Your task to perform on an android device: open chrome privacy settings Image 0: 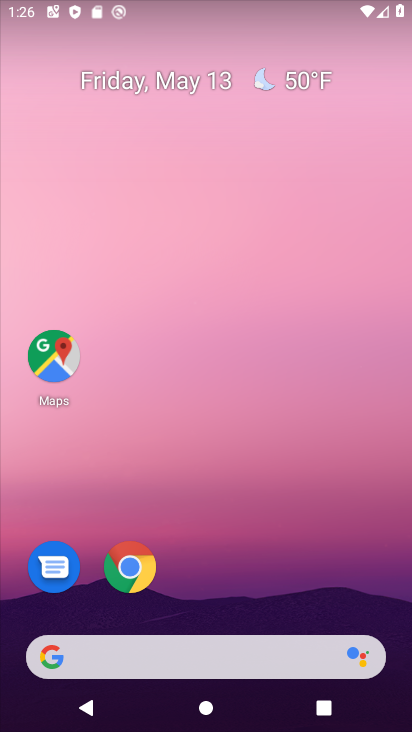
Step 0: drag from (181, 634) to (245, 268)
Your task to perform on an android device: open chrome privacy settings Image 1: 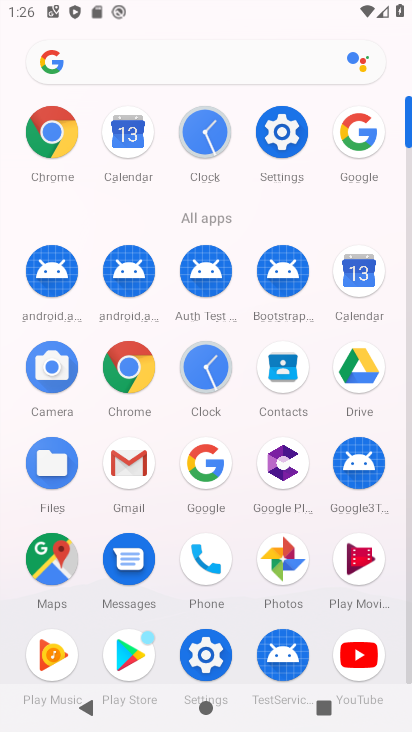
Step 1: click (120, 367)
Your task to perform on an android device: open chrome privacy settings Image 2: 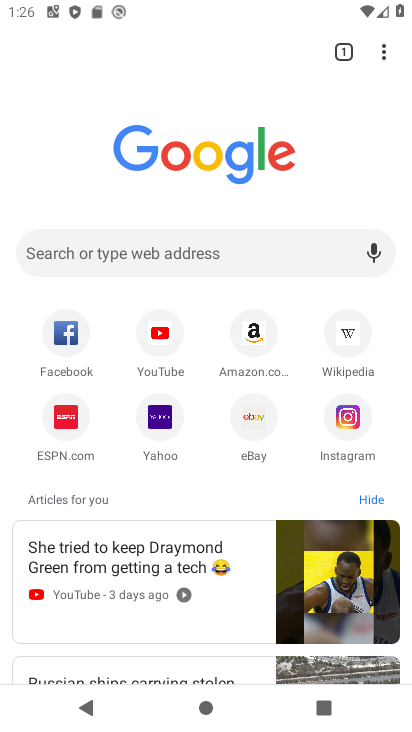
Step 2: click (387, 58)
Your task to perform on an android device: open chrome privacy settings Image 3: 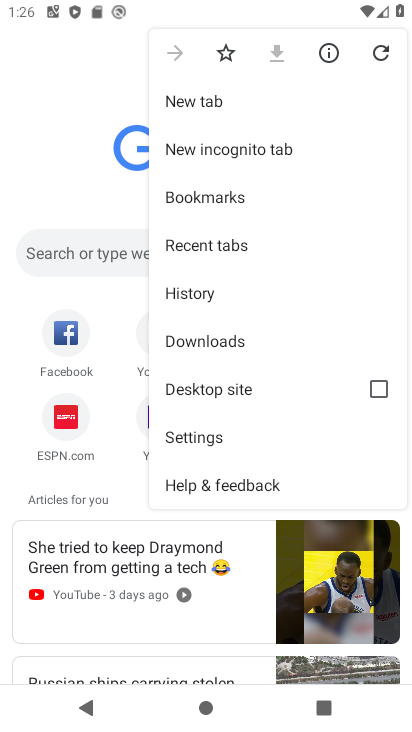
Step 3: click (199, 448)
Your task to perform on an android device: open chrome privacy settings Image 4: 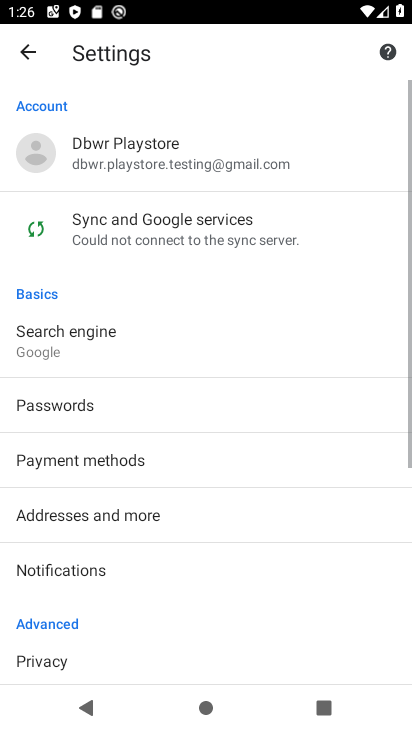
Step 4: drag from (135, 663) to (231, 252)
Your task to perform on an android device: open chrome privacy settings Image 5: 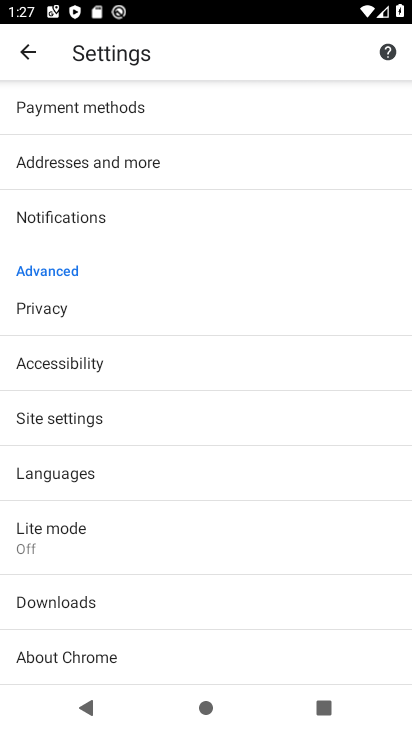
Step 5: click (65, 307)
Your task to perform on an android device: open chrome privacy settings Image 6: 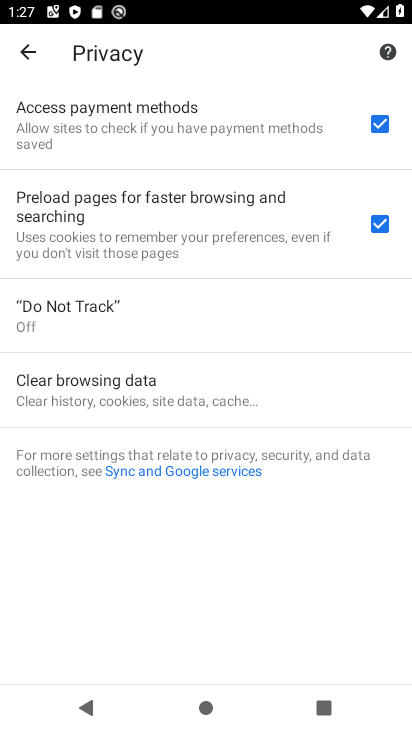
Step 6: task complete